Your task to perform on an android device: check battery use Image 0: 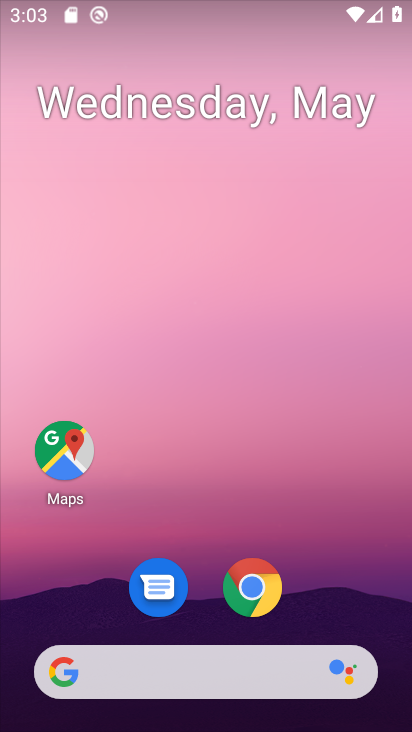
Step 0: drag from (81, 632) to (225, 118)
Your task to perform on an android device: check battery use Image 1: 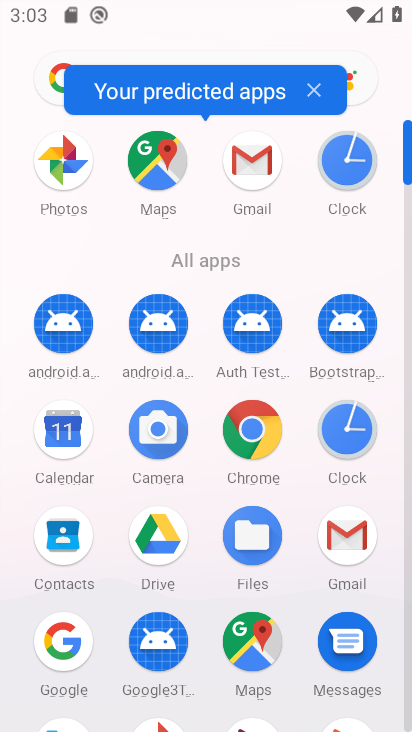
Step 1: drag from (149, 641) to (227, 370)
Your task to perform on an android device: check battery use Image 2: 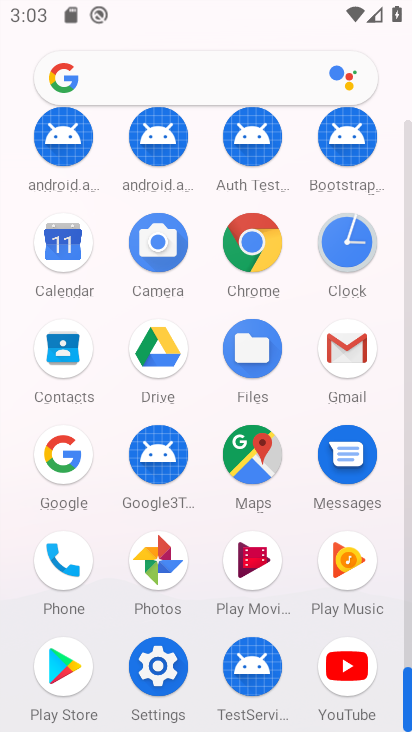
Step 2: click (153, 674)
Your task to perform on an android device: check battery use Image 3: 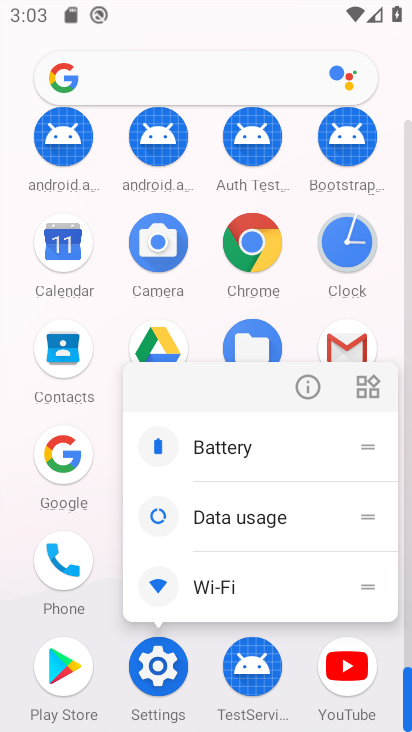
Step 3: click (158, 672)
Your task to perform on an android device: check battery use Image 4: 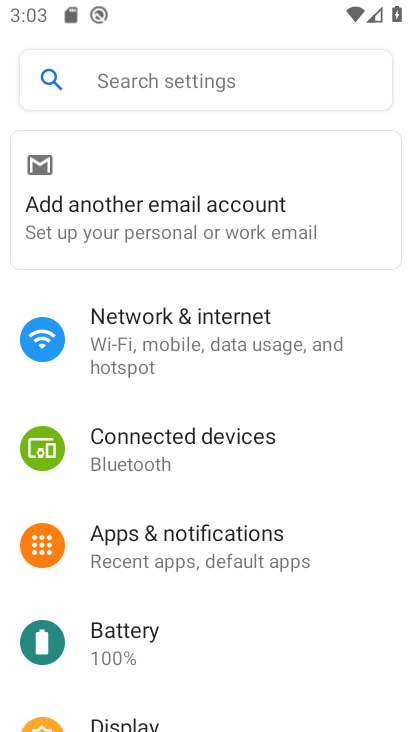
Step 4: click (228, 632)
Your task to perform on an android device: check battery use Image 5: 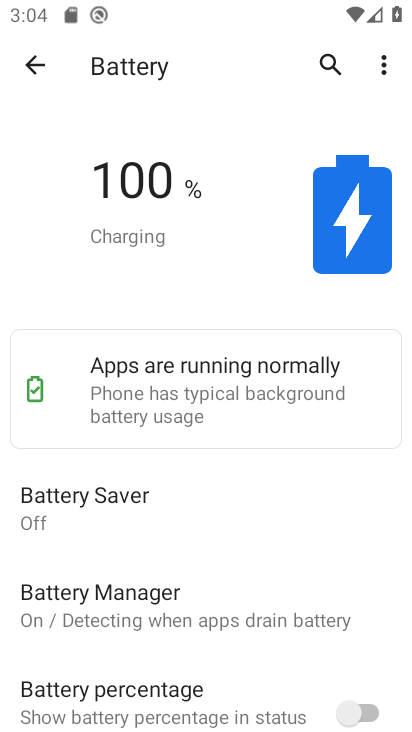
Step 5: click (384, 63)
Your task to perform on an android device: check battery use Image 6: 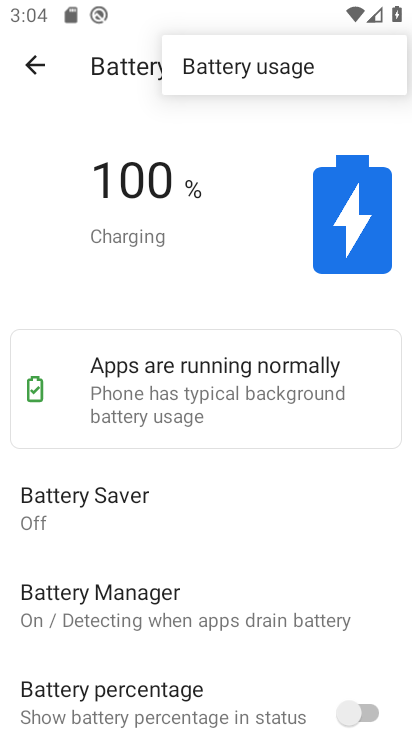
Step 6: click (370, 65)
Your task to perform on an android device: check battery use Image 7: 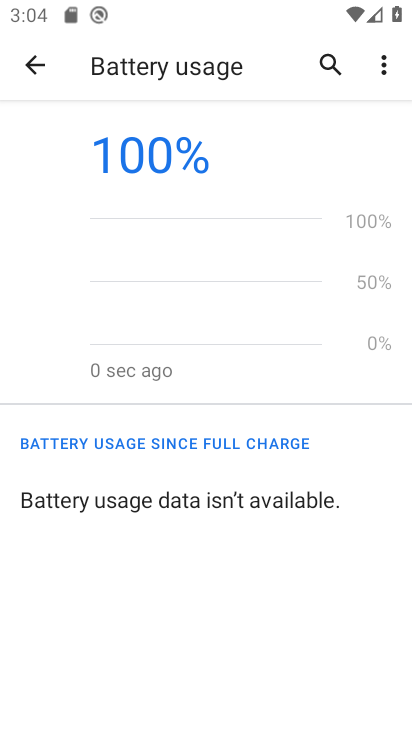
Step 7: task complete